Your task to perform on an android device: turn off notifications settings in the gmail app Image 0: 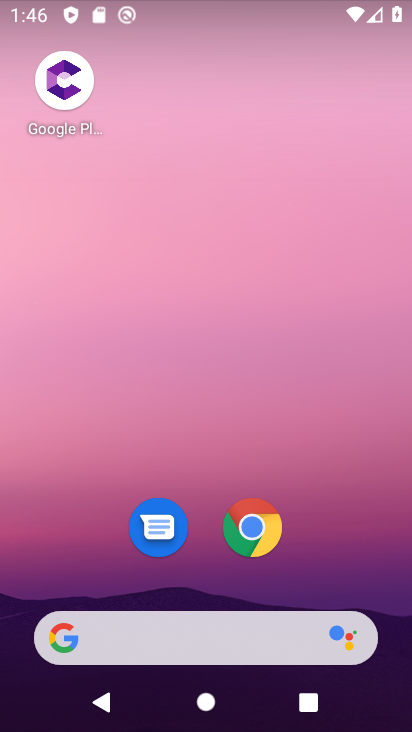
Step 0: drag from (195, 568) to (198, 135)
Your task to perform on an android device: turn off notifications settings in the gmail app Image 1: 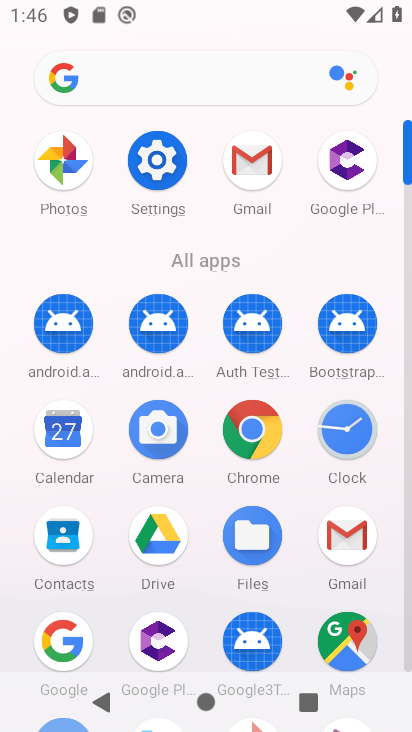
Step 1: click (336, 535)
Your task to perform on an android device: turn off notifications settings in the gmail app Image 2: 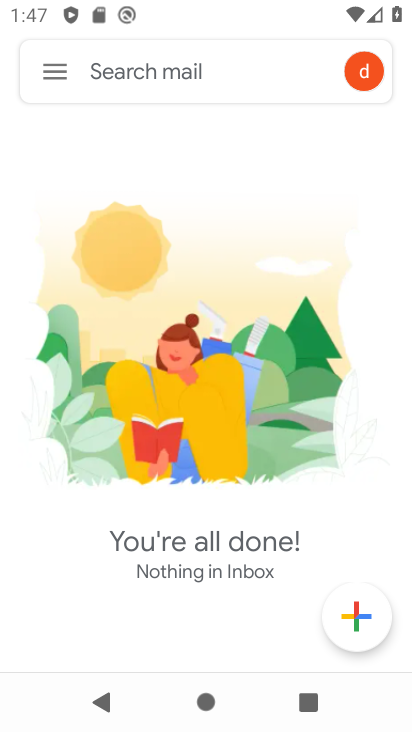
Step 2: click (62, 76)
Your task to perform on an android device: turn off notifications settings in the gmail app Image 3: 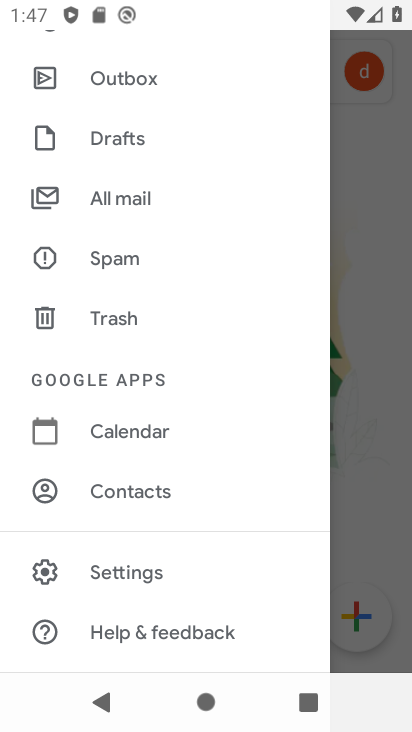
Step 3: click (147, 568)
Your task to perform on an android device: turn off notifications settings in the gmail app Image 4: 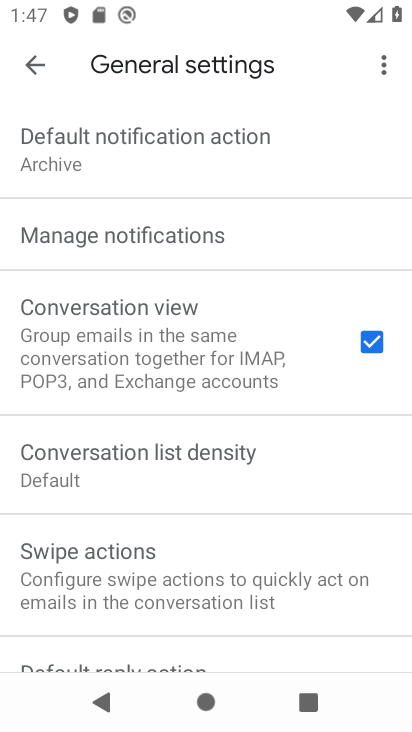
Step 4: click (174, 231)
Your task to perform on an android device: turn off notifications settings in the gmail app Image 5: 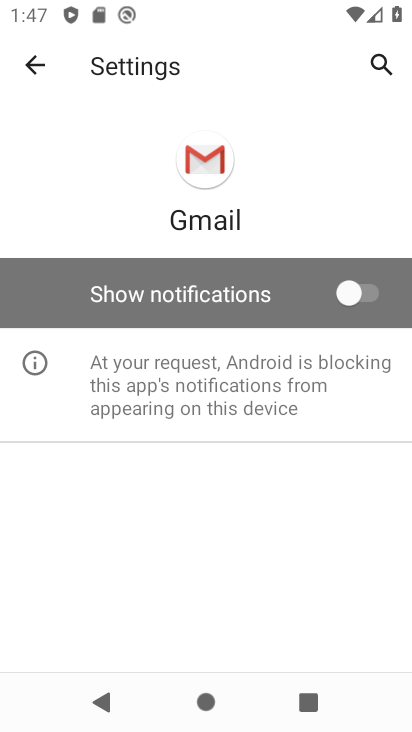
Step 5: task complete